Your task to perform on an android device: change the clock display to analog Image 0: 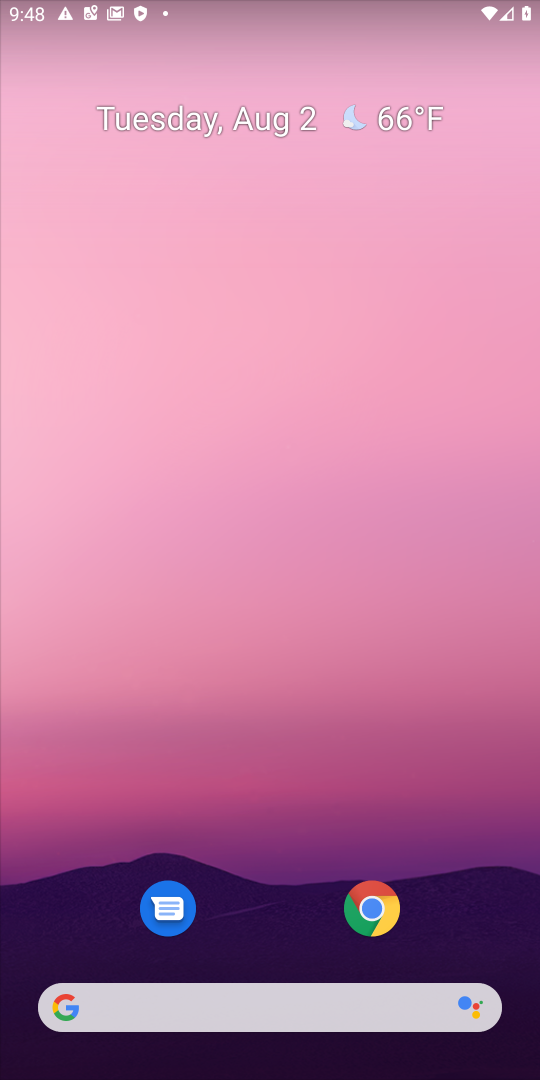
Step 0: drag from (132, 518) to (302, 99)
Your task to perform on an android device: change the clock display to analog Image 1: 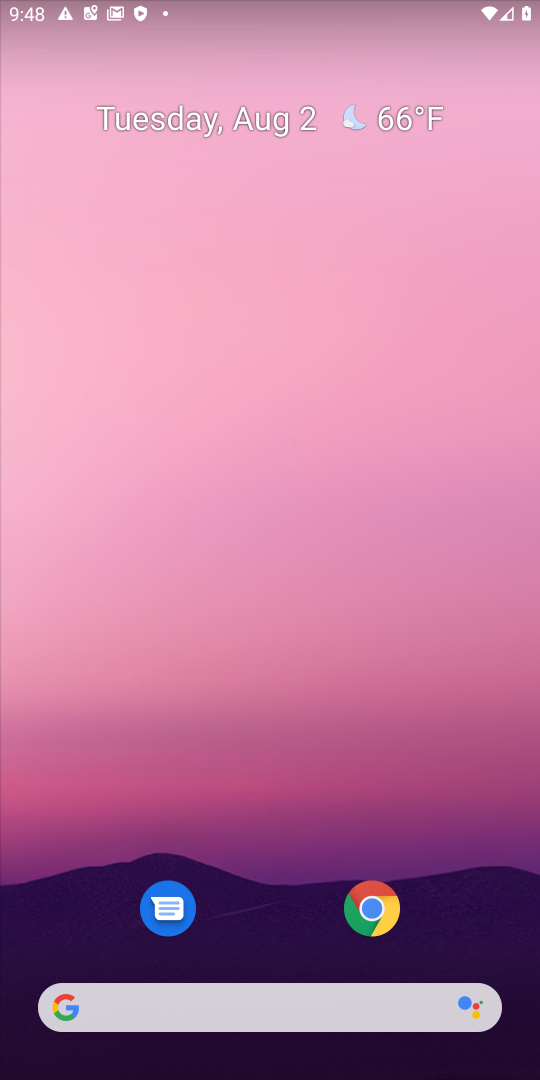
Step 1: drag from (39, 920) to (365, 121)
Your task to perform on an android device: change the clock display to analog Image 2: 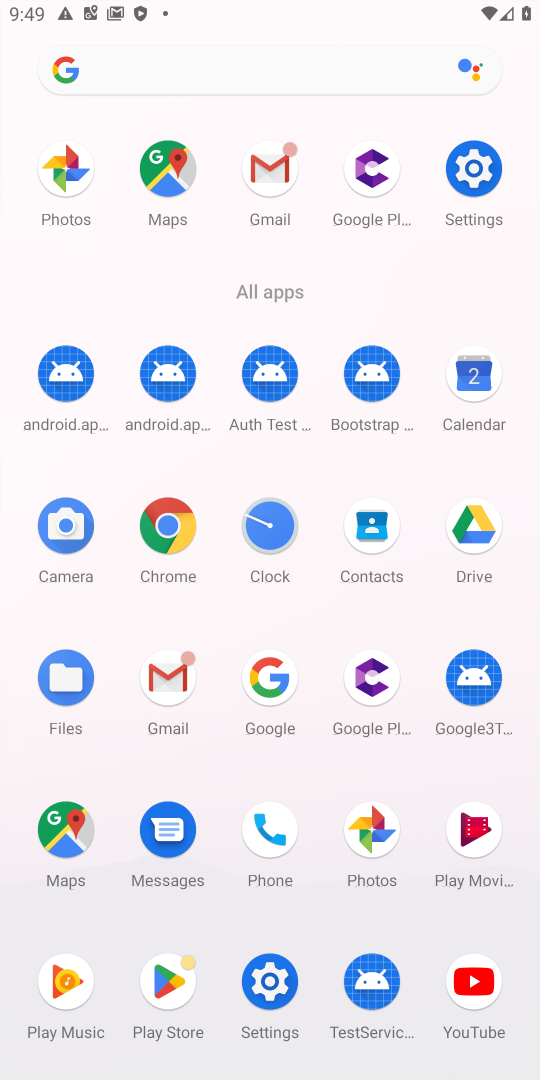
Step 2: click (257, 519)
Your task to perform on an android device: change the clock display to analog Image 3: 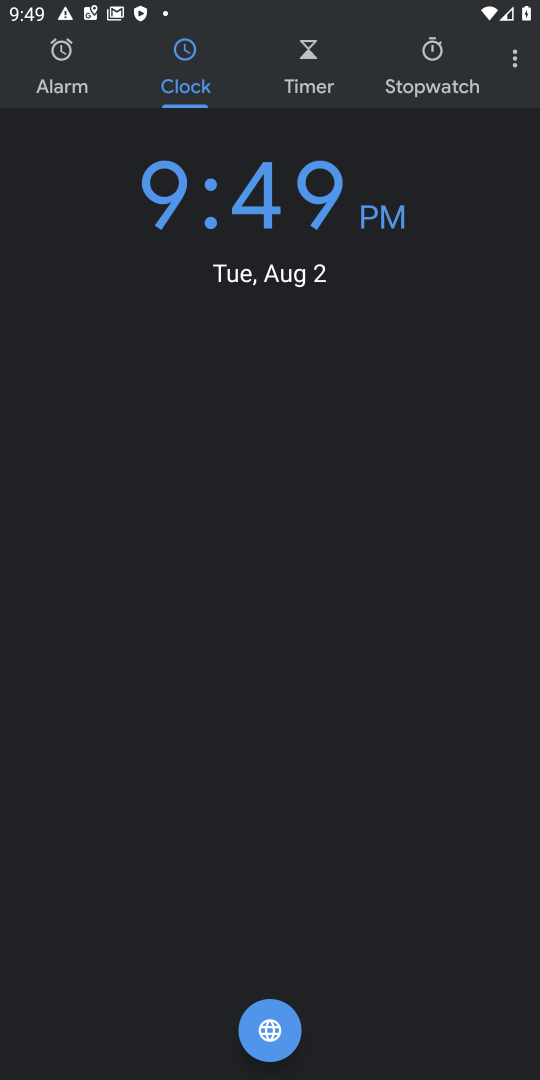
Step 3: click (507, 69)
Your task to perform on an android device: change the clock display to analog Image 4: 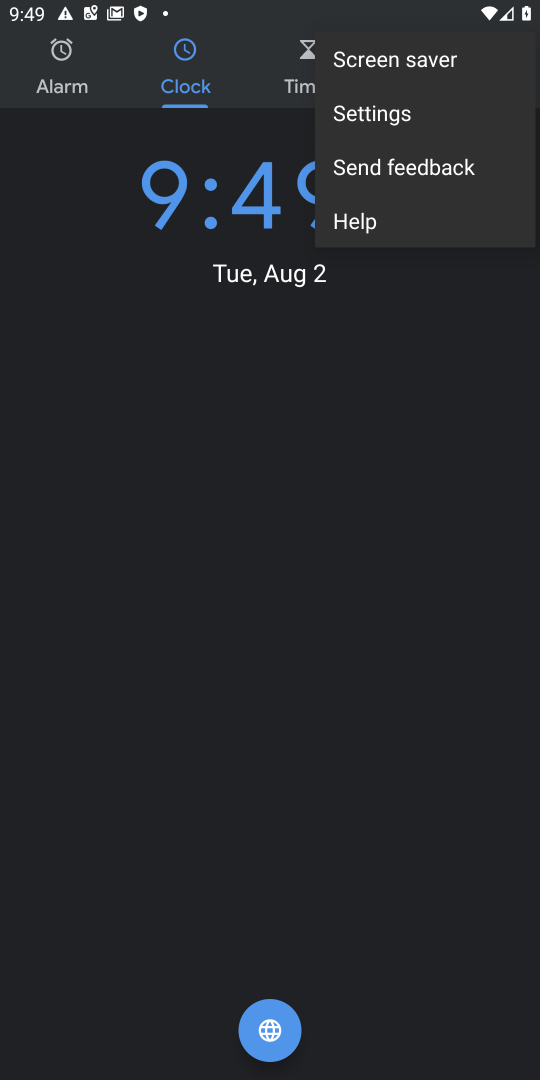
Step 4: click (427, 119)
Your task to perform on an android device: change the clock display to analog Image 5: 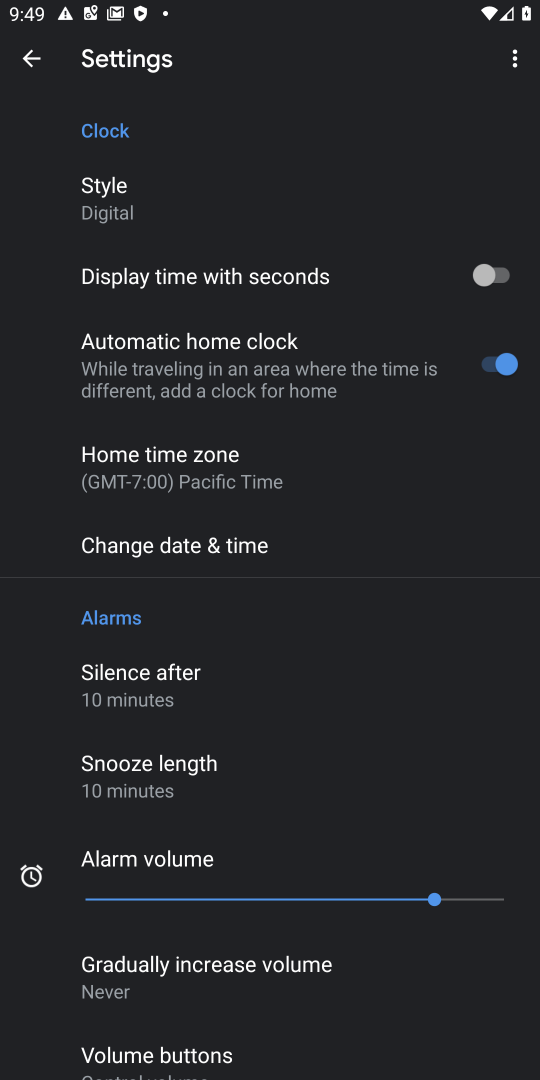
Step 5: click (137, 183)
Your task to perform on an android device: change the clock display to analog Image 6: 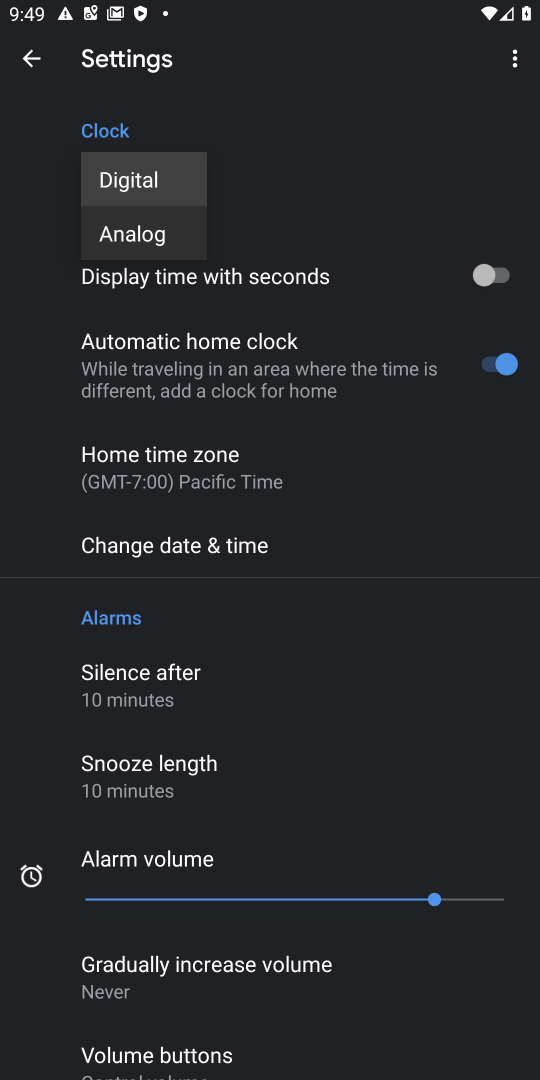
Step 6: click (135, 242)
Your task to perform on an android device: change the clock display to analog Image 7: 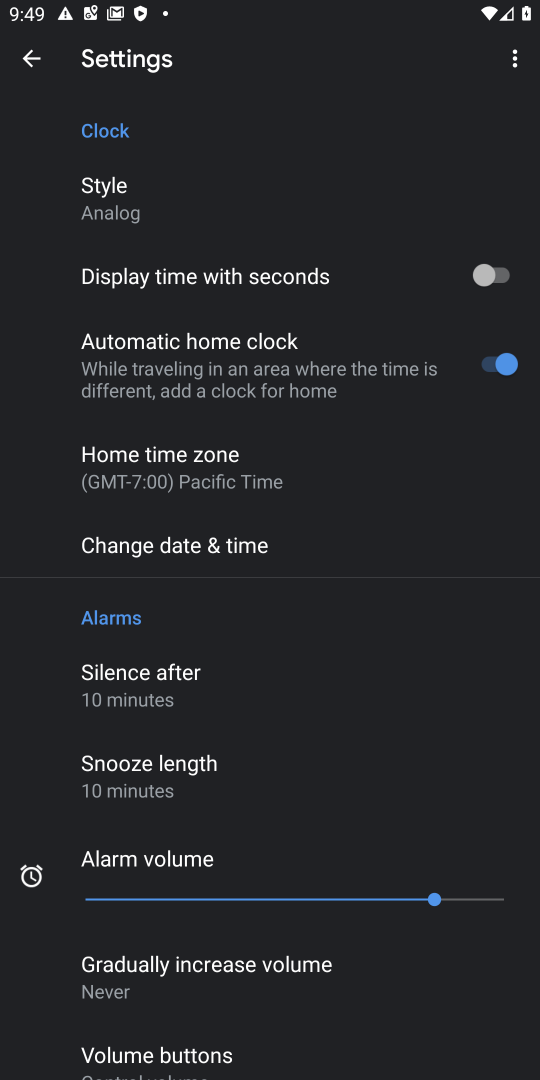
Step 7: task complete